Your task to perform on an android device: change alarm snooze length Image 0: 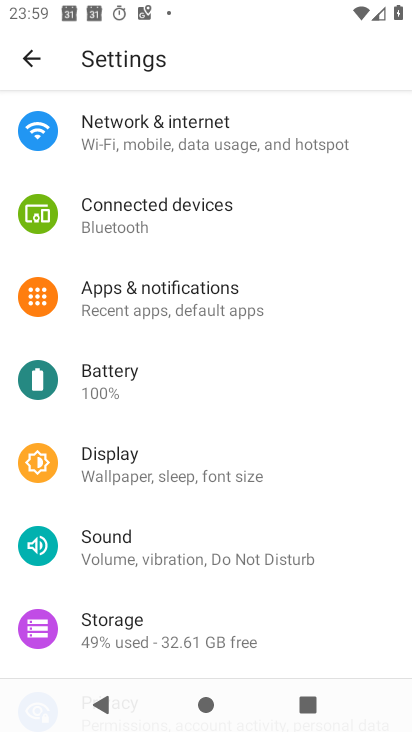
Step 0: press home button
Your task to perform on an android device: change alarm snooze length Image 1: 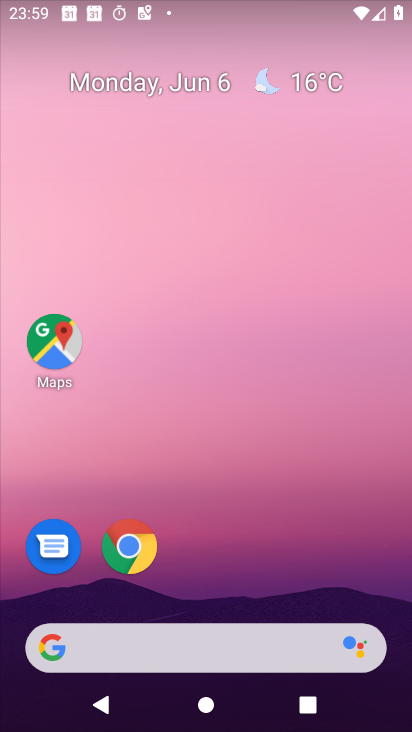
Step 1: drag from (243, 597) to (355, 108)
Your task to perform on an android device: change alarm snooze length Image 2: 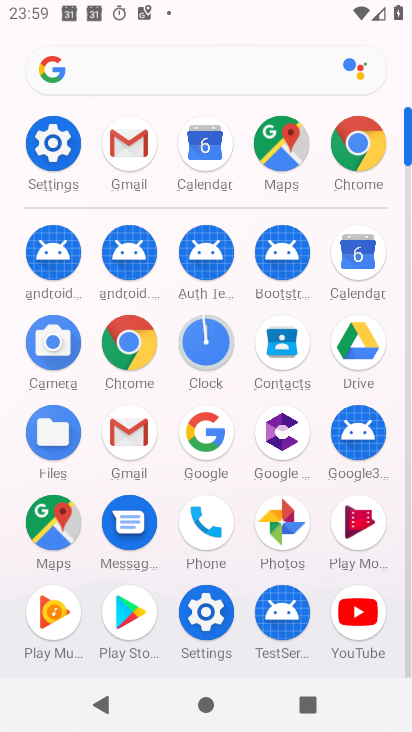
Step 2: click (216, 353)
Your task to perform on an android device: change alarm snooze length Image 3: 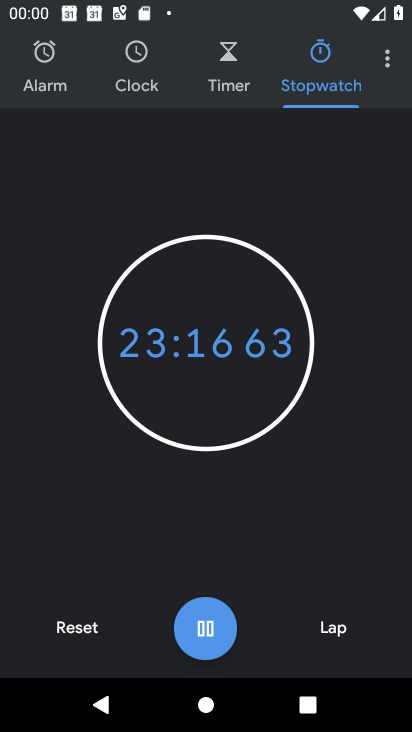
Step 3: click (78, 622)
Your task to perform on an android device: change alarm snooze length Image 4: 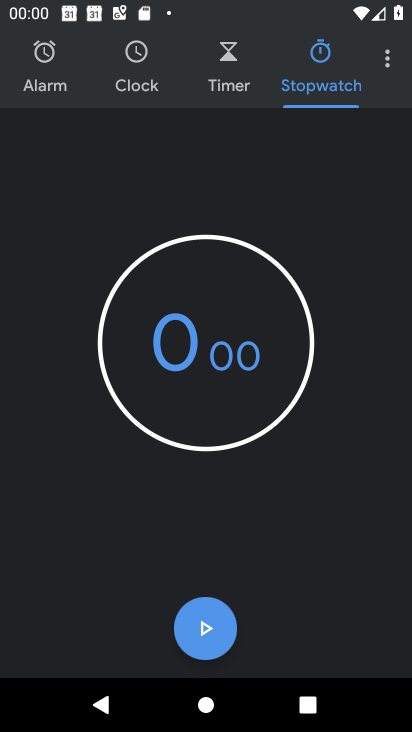
Step 4: click (392, 59)
Your task to perform on an android device: change alarm snooze length Image 5: 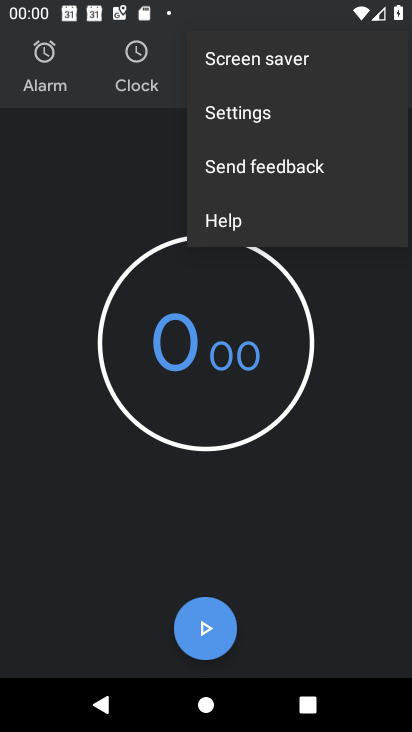
Step 5: click (245, 116)
Your task to perform on an android device: change alarm snooze length Image 6: 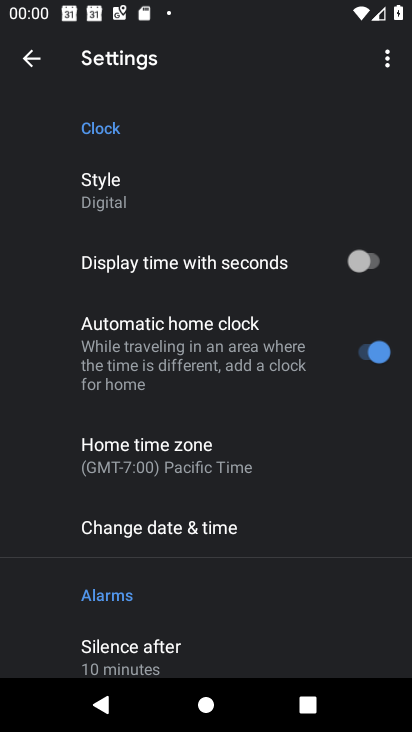
Step 6: drag from (154, 563) to (240, 220)
Your task to perform on an android device: change alarm snooze length Image 7: 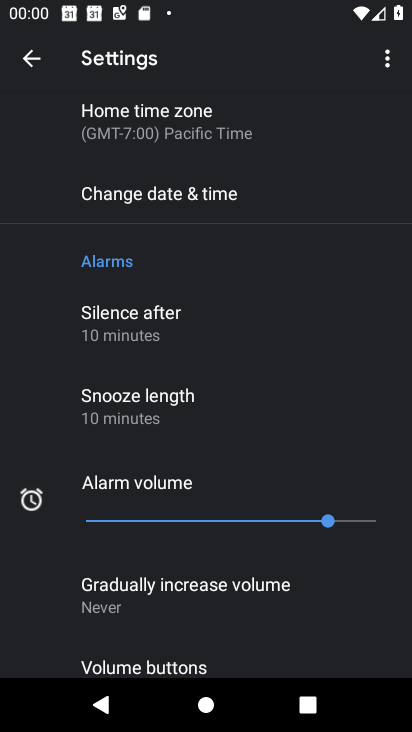
Step 7: drag from (165, 599) to (250, 183)
Your task to perform on an android device: change alarm snooze length Image 8: 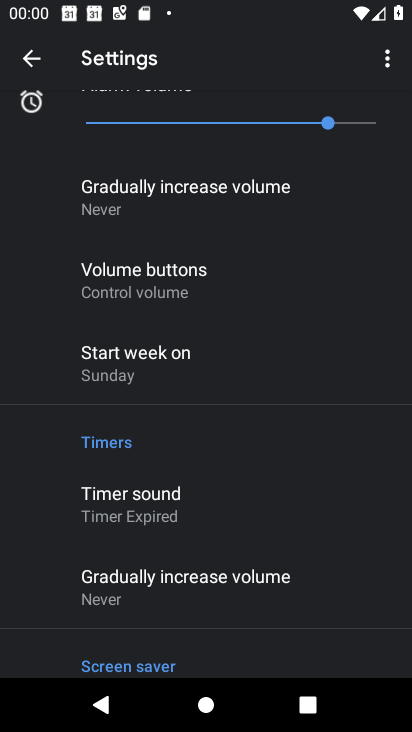
Step 8: drag from (152, 571) to (198, 295)
Your task to perform on an android device: change alarm snooze length Image 9: 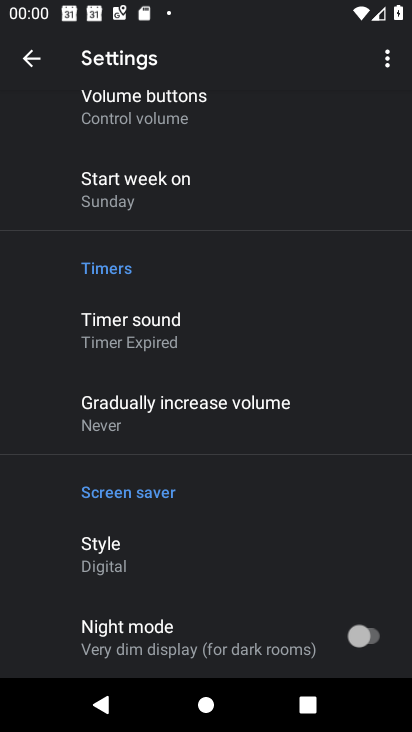
Step 9: drag from (197, 346) to (144, 657)
Your task to perform on an android device: change alarm snooze length Image 10: 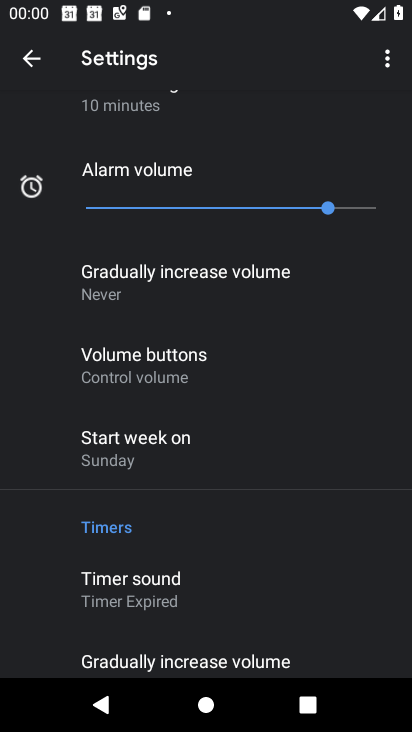
Step 10: drag from (164, 307) to (125, 585)
Your task to perform on an android device: change alarm snooze length Image 11: 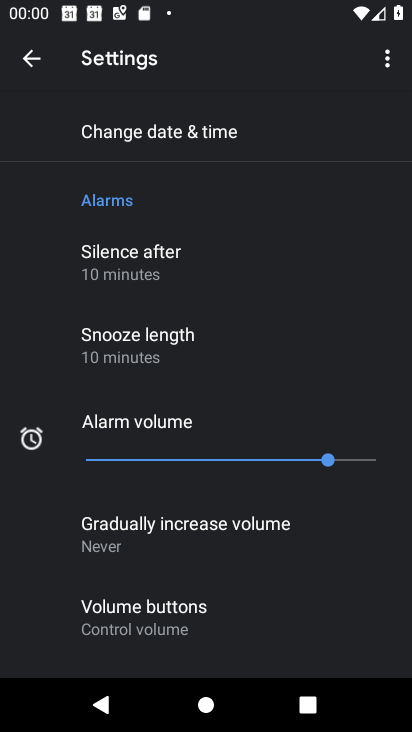
Step 11: click (132, 337)
Your task to perform on an android device: change alarm snooze length Image 12: 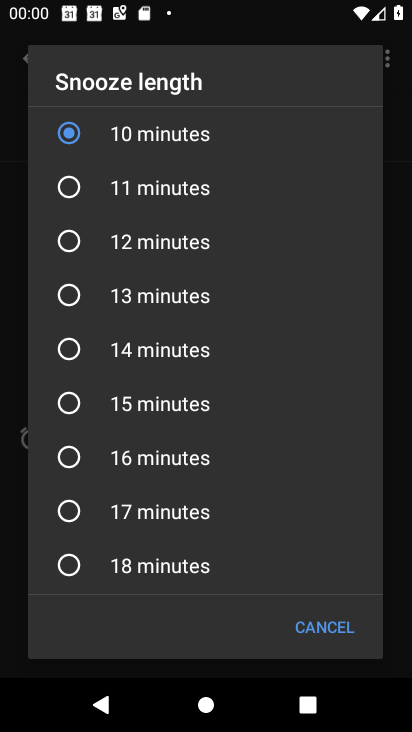
Step 12: click (85, 353)
Your task to perform on an android device: change alarm snooze length Image 13: 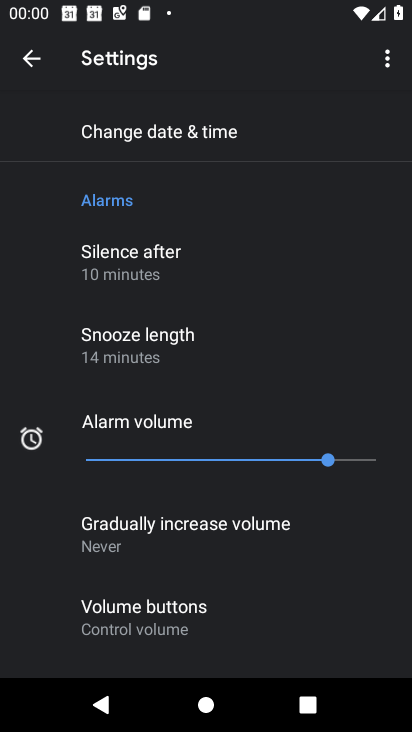
Step 13: task complete